Your task to perform on an android device: open sync settings in chrome Image 0: 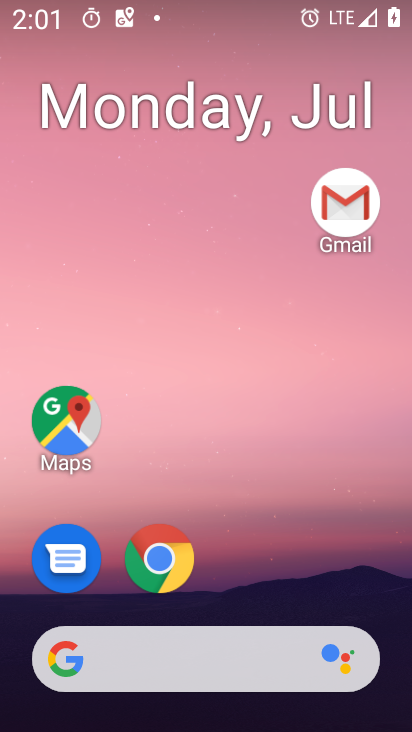
Step 0: drag from (353, 567) to (379, 123)
Your task to perform on an android device: open sync settings in chrome Image 1: 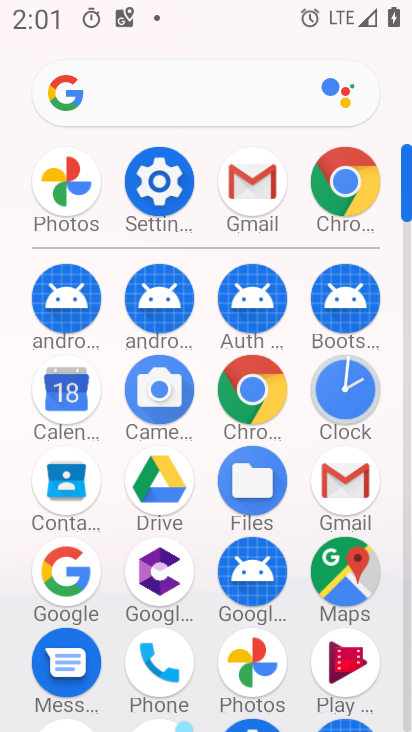
Step 1: click (260, 388)
Your task to perform on an android device: open sync settings in chrome Image 2: 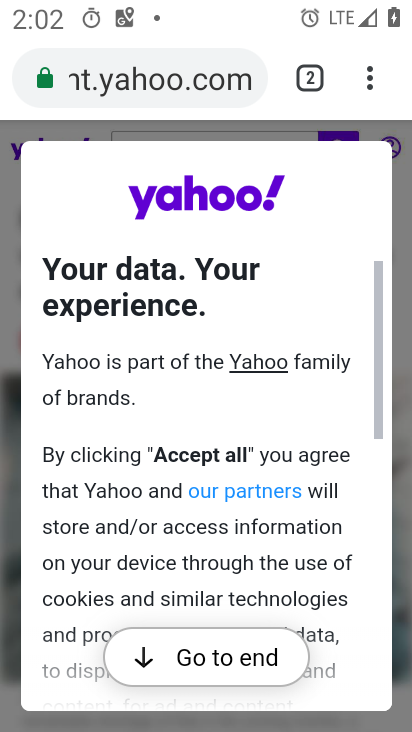
Step 2: click (363, 85)
Your task to perform on an android device: open sync settings in chrome Image 3: 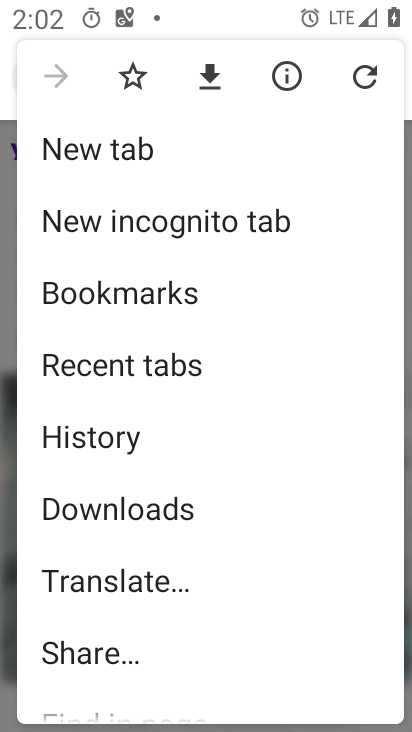
Step 3: drag from (313, 522) to (321, 389)
Your task to perform on an android device: open sync settings in chrome Image 4: 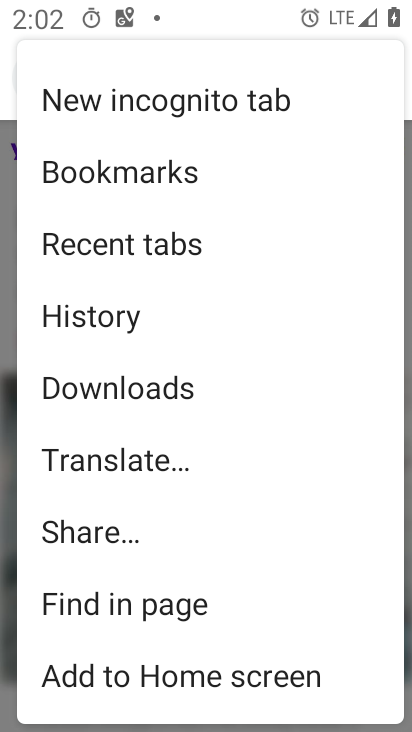
Step 4: drag from (308, 444) to (306, 341)
Your task to perform on an android device: open sync settings in chrome Image 5: 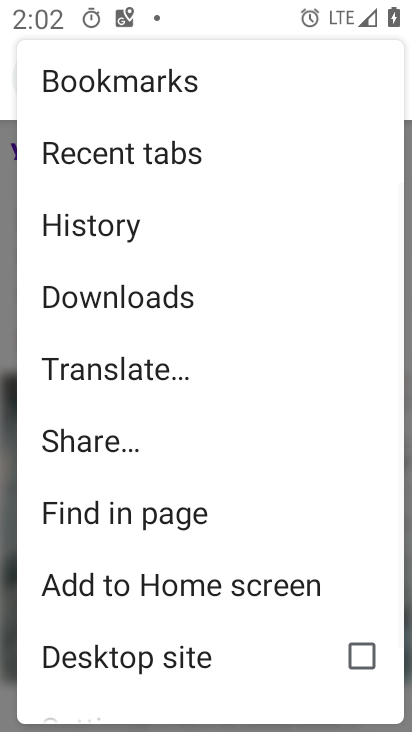
Step 5: drag from (287, 489) to (287, 385)
Your task to perform on an android device: open sync settings in chrome Image 6: 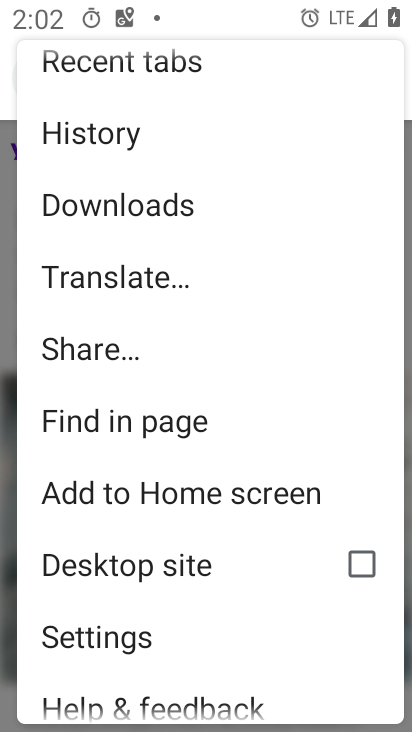
Step 6: click (134, 635)
Your task to perform on an android device: open sync settings in chrome Image 7: 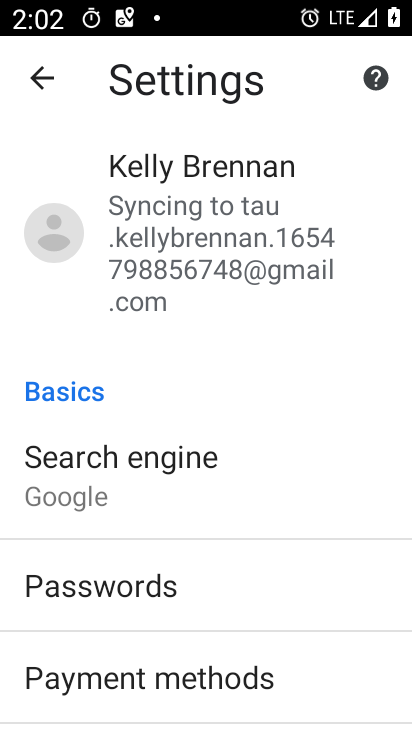
Step 7: drag from (230, 601) to (235, 468)
Your task to perform on an android device: open sync settings in chrome Image 8: 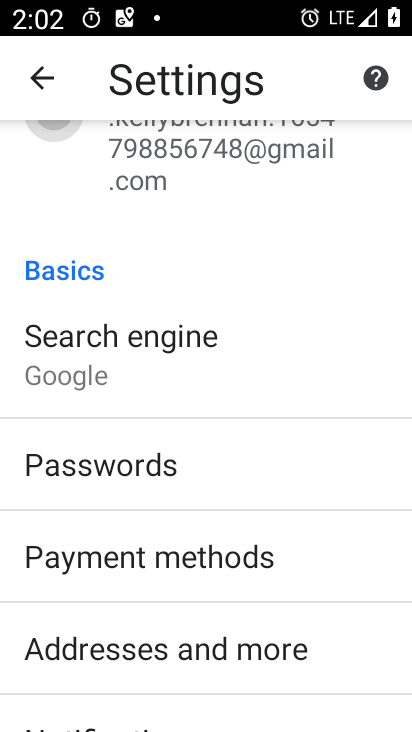
Step 8: drag from (316, 596) to (336, 392)
Your task to perform on an android device: open sync settings in chrome Image 9: 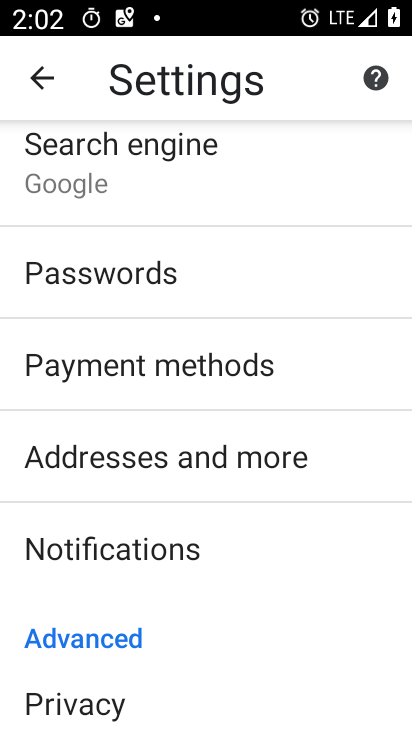
Step 9: drag from (293, 579) to (297, 505)
Your task to perform on an android device: open sync settings in chrome Image 10: 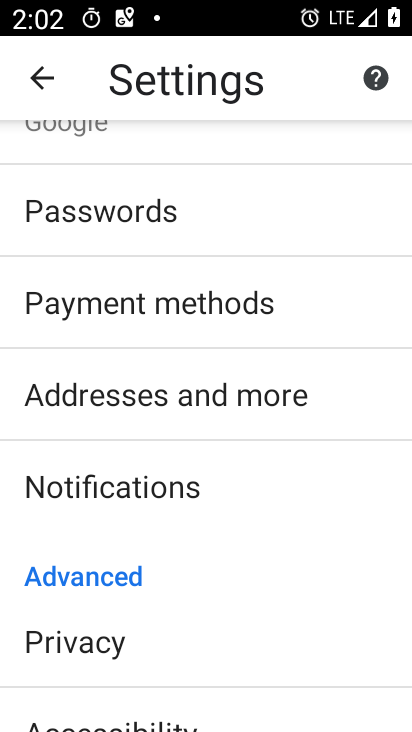
Step 10: drag from (290, 624) to (297, 484)
Your task to perform on an android device: open sync settings in chrome Image 11: 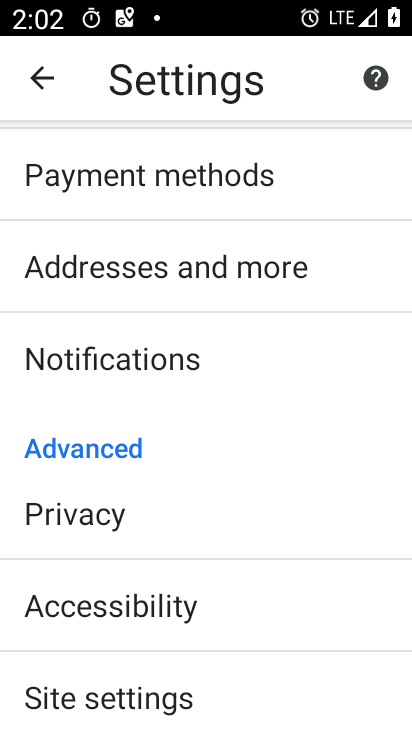
Step 11: drag from (290, 587) to (295, 500)
Your task to perform on an android device: open sync settings in chrome Image 12: 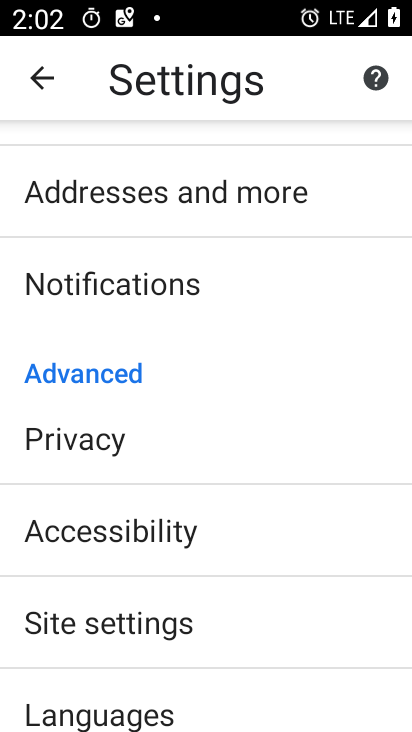
Step 12: drag from (284, 613) to (284, 500)
Your task to perform on an android device: open sync settings in chrome Image 13: 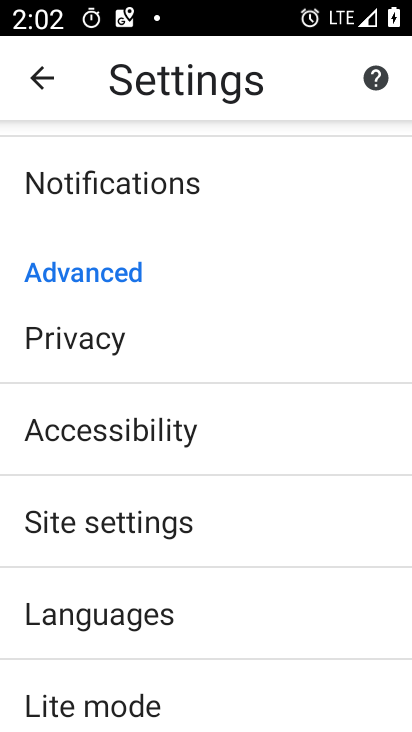
Step 13: click (277, 514)
Your task to perform on an android device: open sync settings in chrome Image 14: 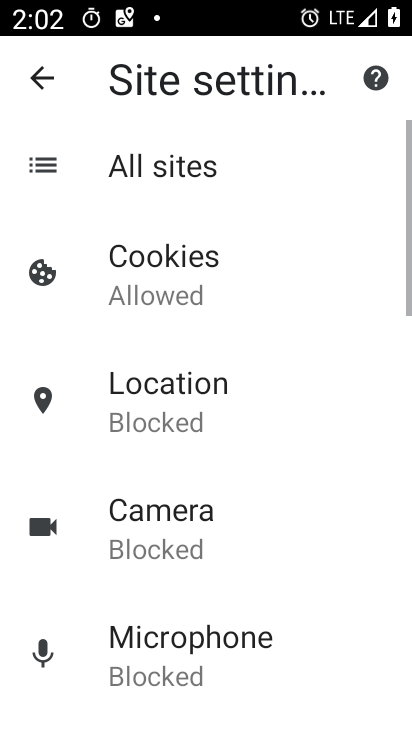
Step 14: drag from (289, 573) to (291, 502)
Your task to perform on an android device: open sync settings in chrome Image 15: 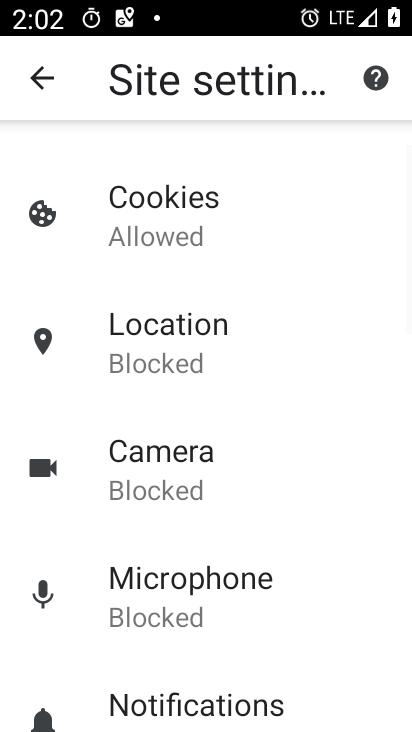
Step 15: drag from (298, 616) to (298, 551)
Your task to perform on an android device: open sync settings in chrome Image 16: 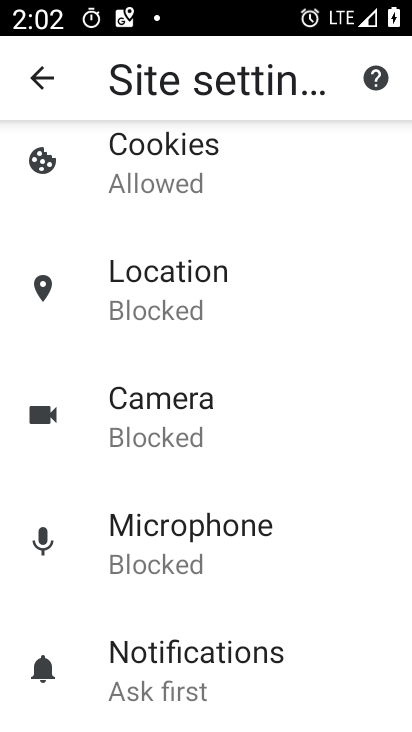
Step 16: drag from (313, 631) to (311, 544)
Your task to perform on an android device: open sync settings in chrome Image 17: 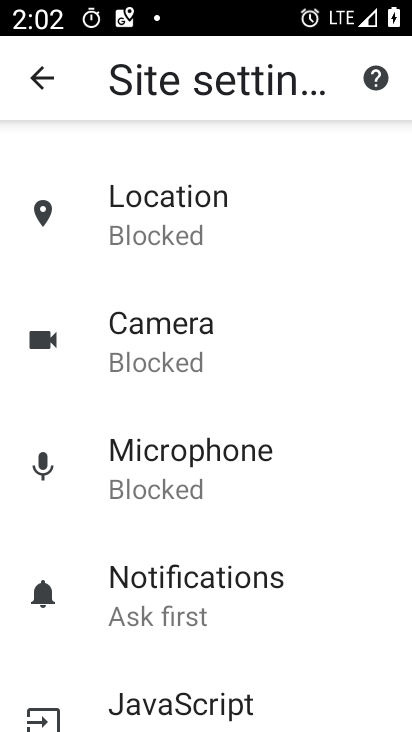
Step 17: drag from (314, 618) to (316, 484)
Your task to perform on an android device: open sync settings in chrome Image 18: 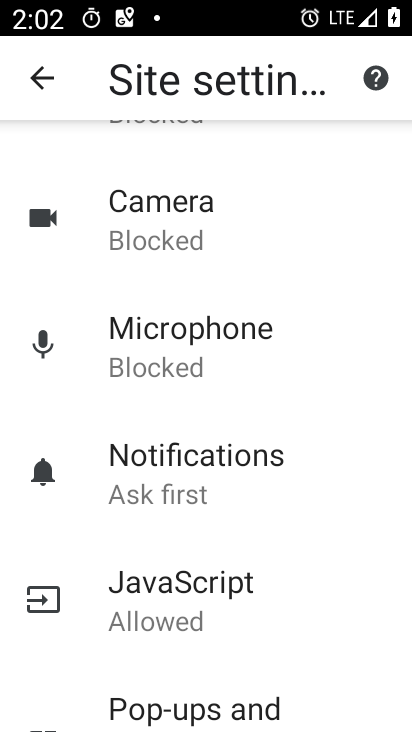
Step 18: drag from (314, 570) to (314, 488)
Your task to perform on an android device: open sync settings in chrome Image 19: 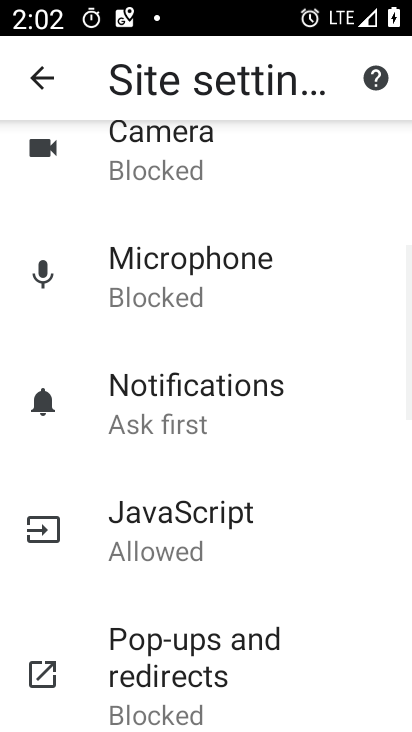
Step 19: drag from (321, 579) to (321, 489)
Your task to perform on an android device: open sync settings in chrome Image 20: 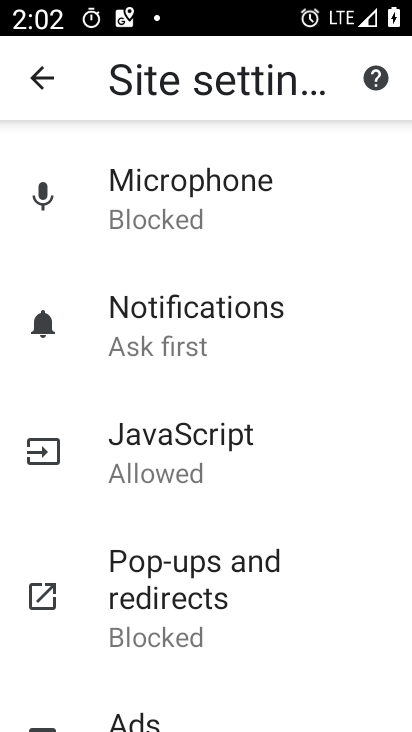
Step 20: drag from (333, 547) to (334, 453)
Your task to perform on an android device: open sync settings in chrome Image 21: 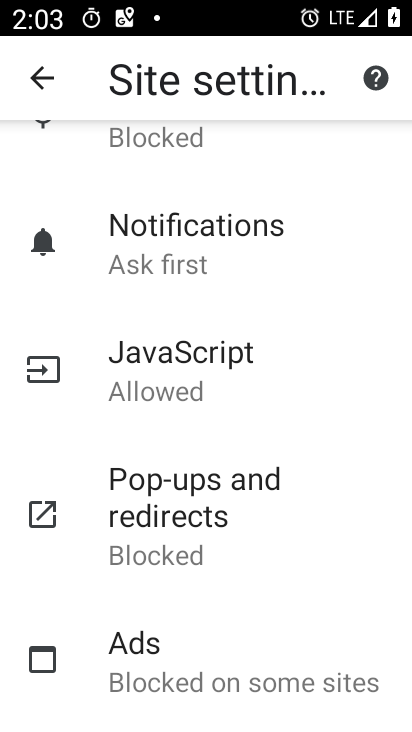
Step 21: drag from (312, 561) to (312, 468)
Your task to perform on an android device: open sync settings in chrome Image 22: 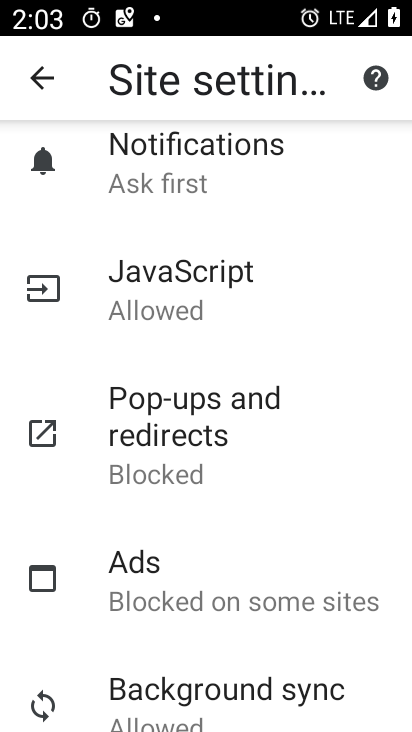
Step 22: drag from (313, 622) to (313, 501)
Your task to perform on an android device: open sync settings in chrome Image 23: 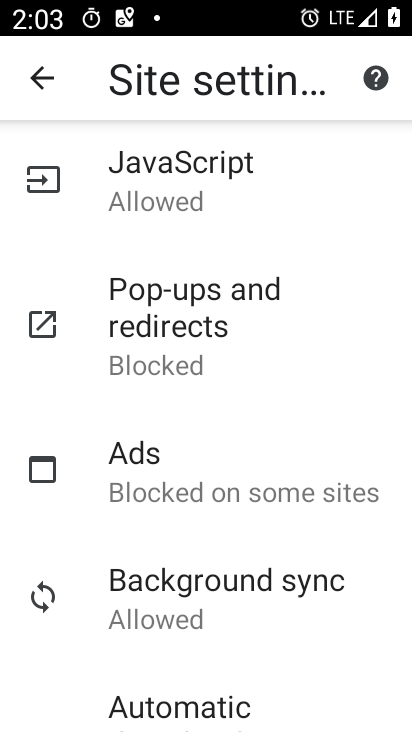
Step 23: drag from (310, 652) to (310, 534)
Your task to perform on an android device: open sync settings in chrome Image 24: 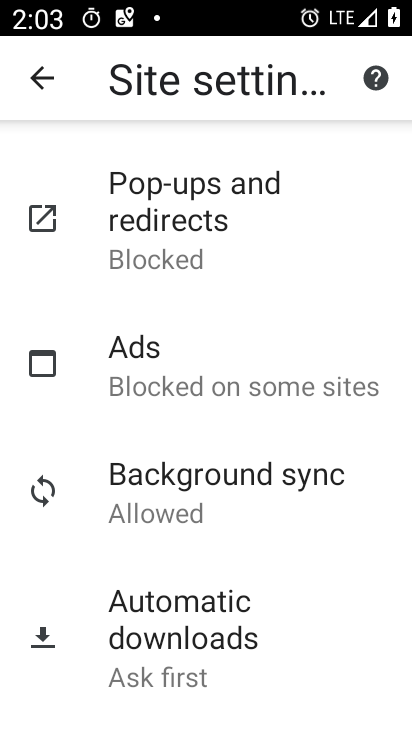
Step 24: click (253, 493)
Your task to perform on an android device: open sync settings in chrome Image 25: 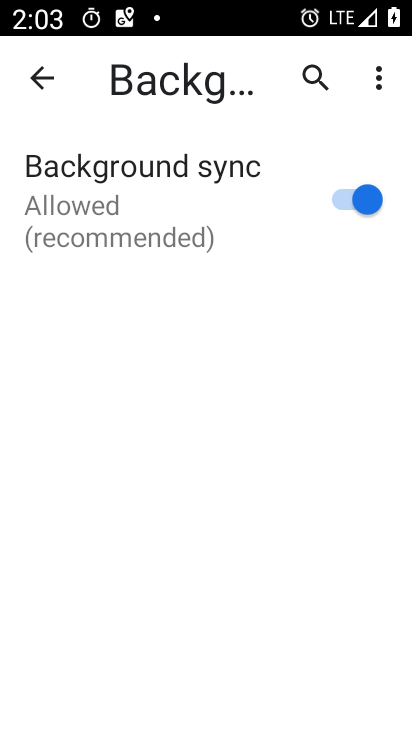
Step 25: task complete